Your task to perform on an android device: Open Google Chrome and click the shortcut for Amazon.com Image 0: 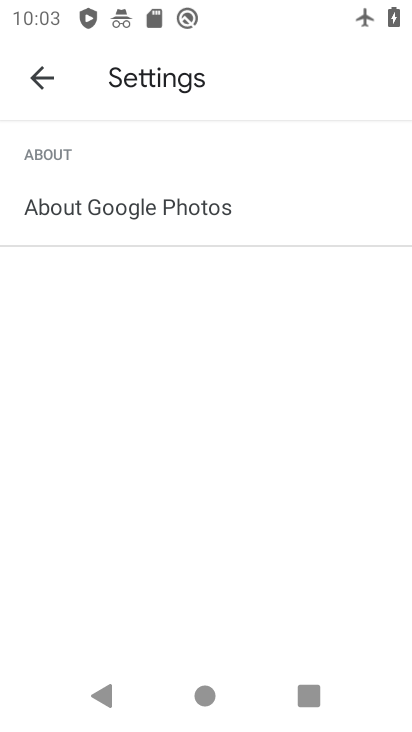
Step 0: click (43, 76)
Your task to perform on an android device: Open Google Chrome and click the shortcut for Amazon.com Image 1: 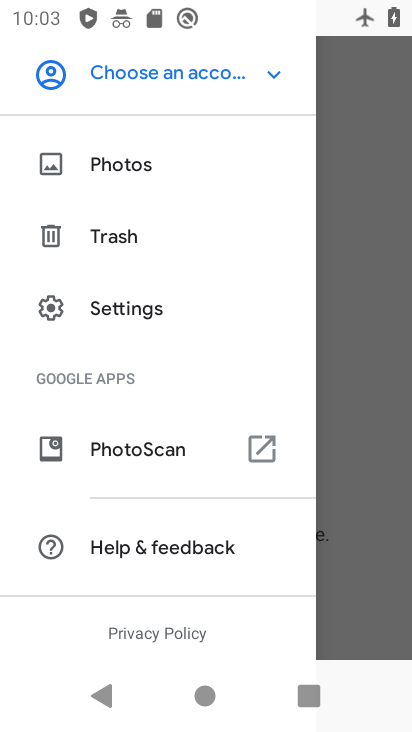
Step 1: press home button
Your task to perform on an android device: Open Google Chrome and click the shortcut for Amazon.com Image 2: 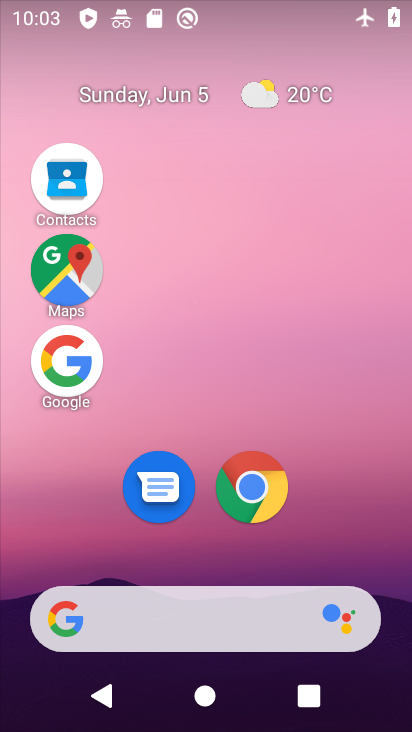
Step 2: click (286, 505)
Your task to perform on an android device: Open Google Chrome and click the shortcut for Amazon.com Image 3: 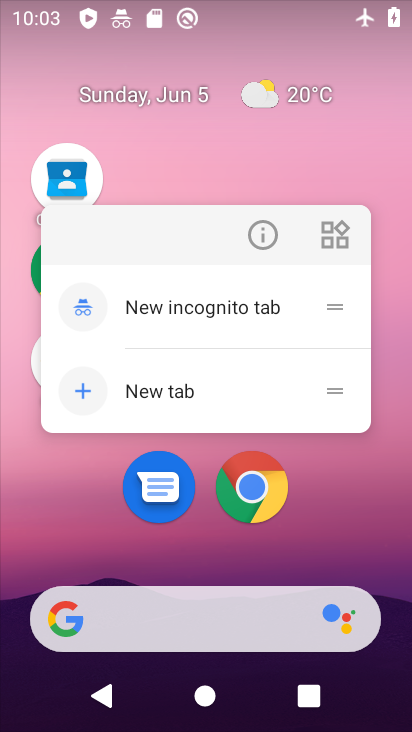
Step 3: click (280, 479)
Your task to perform on an android device: Open Google Chrome and click the shortcut for Amazon.com Image 4: 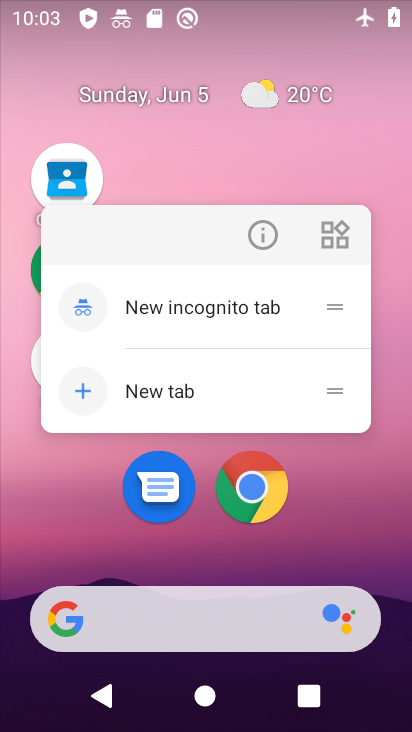
Step 4: click (268, 507)
Your task to perform on an android device: Open Google Chrome and click the shortcut for Amazon.com Image 5: 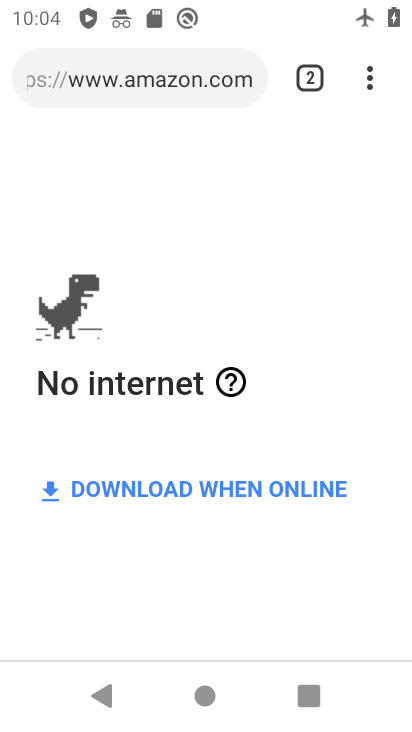
Step 5: task complete